Your task to perform on an android device: Go to calendar. Show me events next week Image 0: 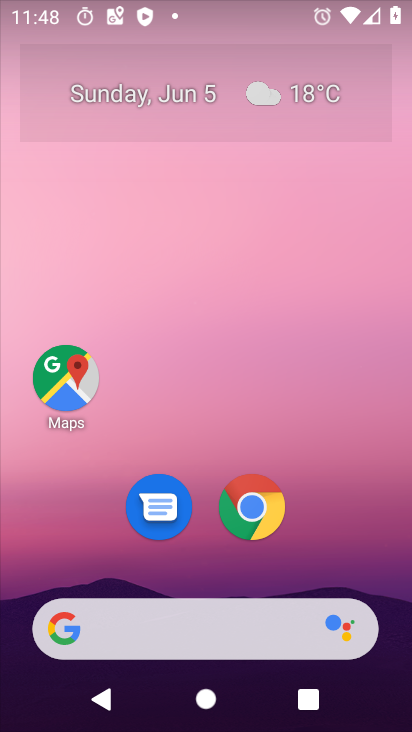
Step 0: click (216, 13)
Your task to perform on an android device: Go to calendar. Show me events next week Image 1: 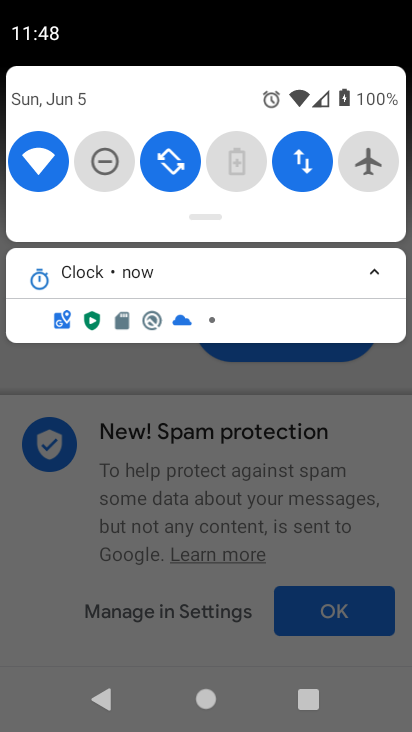
Step 1: press home button
Your task to perform on an android device: Go to calendar. Show me events next week Image 2: 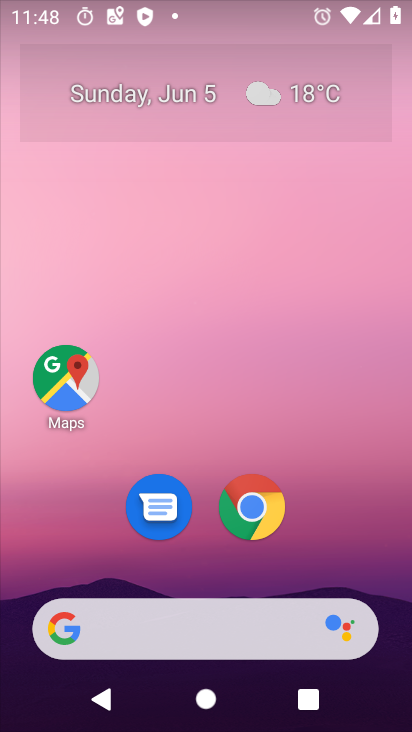
Step 2: drag from (236, 721) to (219, 41)
Your task to perform on an android device: Go to calendar. Show me events next week Image 3: 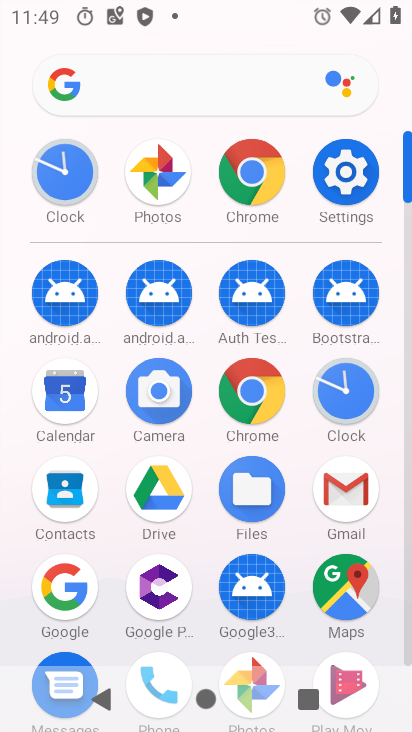
Step 3: click (59, 387)
Your task to perform on an android device: Go to calendar. Show me events next week Image 4: 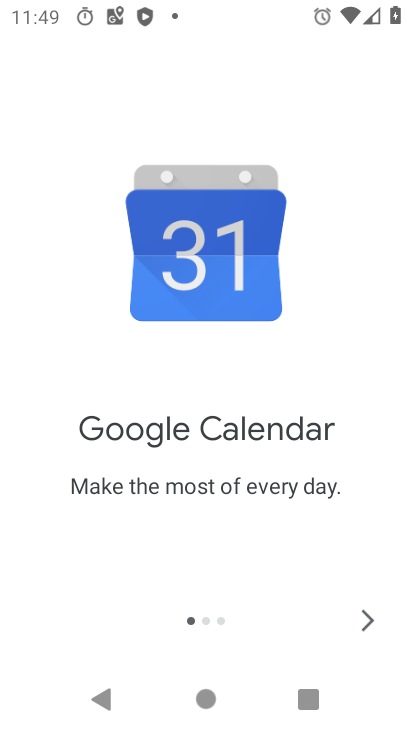
Step 4: click (368, 617)
Your task to perform on an android device: Go to calendar. Show me events next week Image 5: 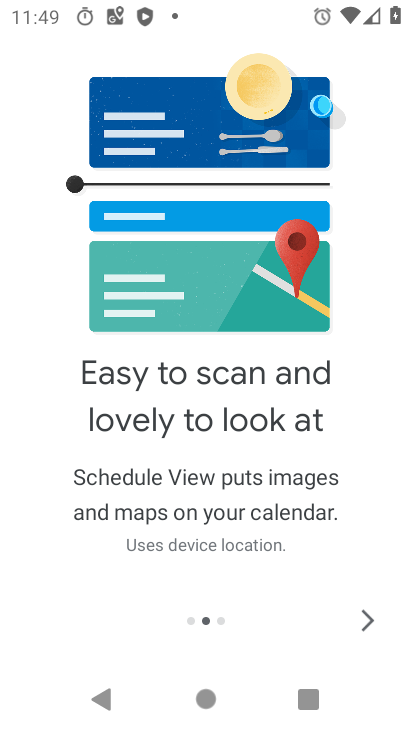
Step 5: click (368, 617)
Your task to perform on an android device: Go to calendar. Show me events next week Image 6: 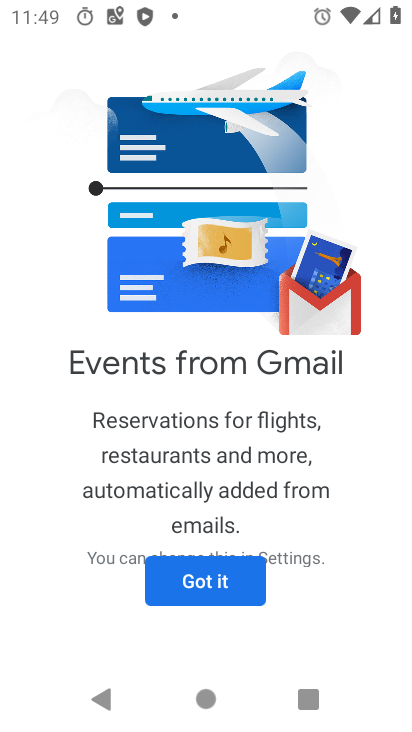
Step 6: click (200, 583)
Your task to perform on an android device: Go to calendar. Show me events next week Image 7: 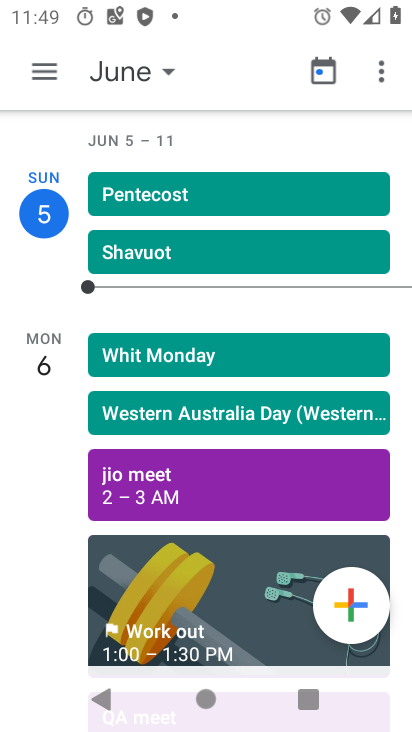
Step 7: click (153, 71)
Your task to perform on an android device: Go to calendar. Show me events next week Image 8: 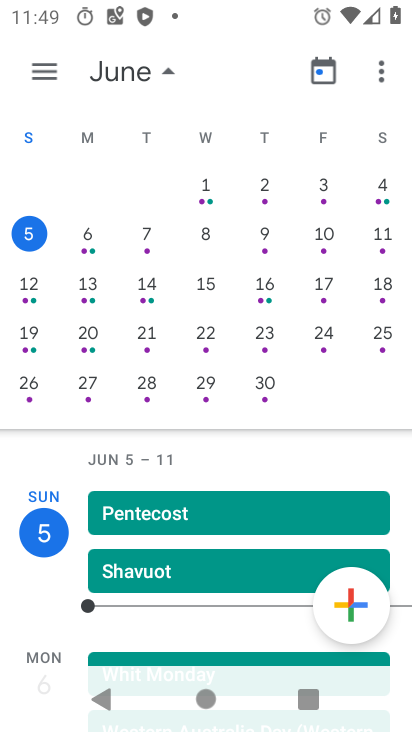
Step 8: click (89, 284)
Your task to perform on an android device: Go to calendar. Show me events next week Image 9: 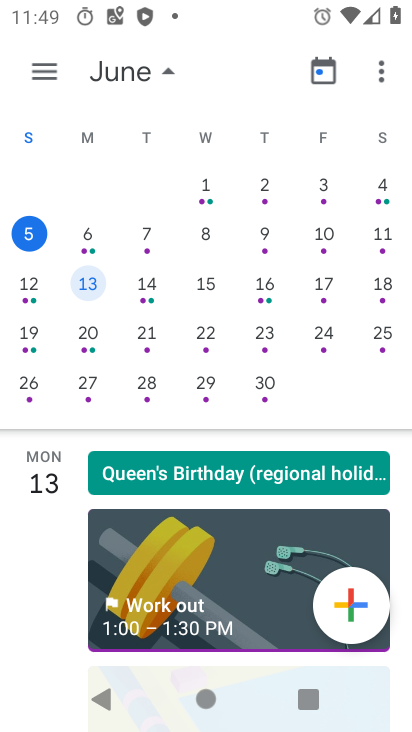
Step 9: click (87, 222)
Your task to perform on an android device: Go to calendar. Show me events next week Image 10: 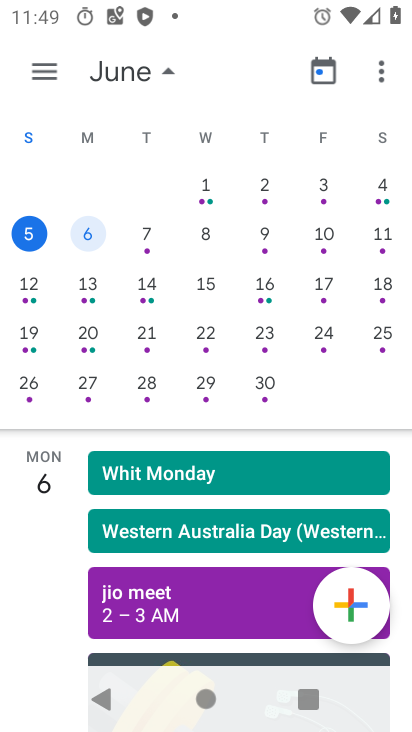
Step 10: click (44, 66)
Your task to perform on an android device: Go to calendar. Show me events next week Image 11: 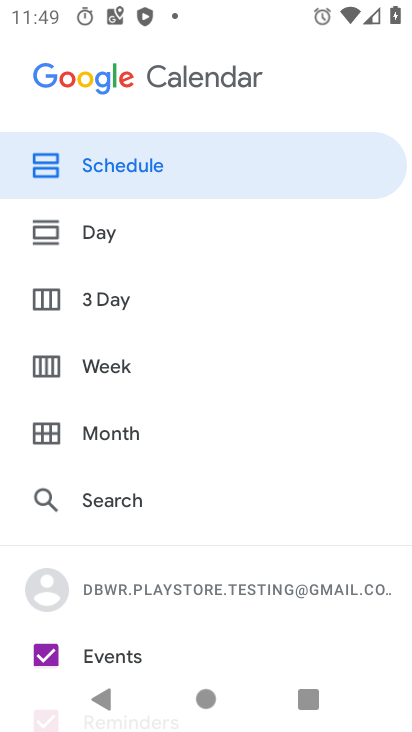
Step 11: click (112, 364)
Your task to perform on an android device: Go to calendar. Show me events next week Image 12: 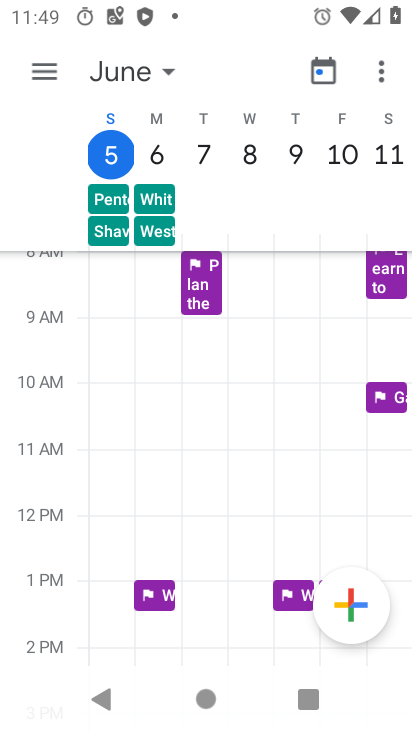
Step 12: task complete